Your task to perform on an android device: open app "Etsy: Buy & Sell Unique Items" Image 0: 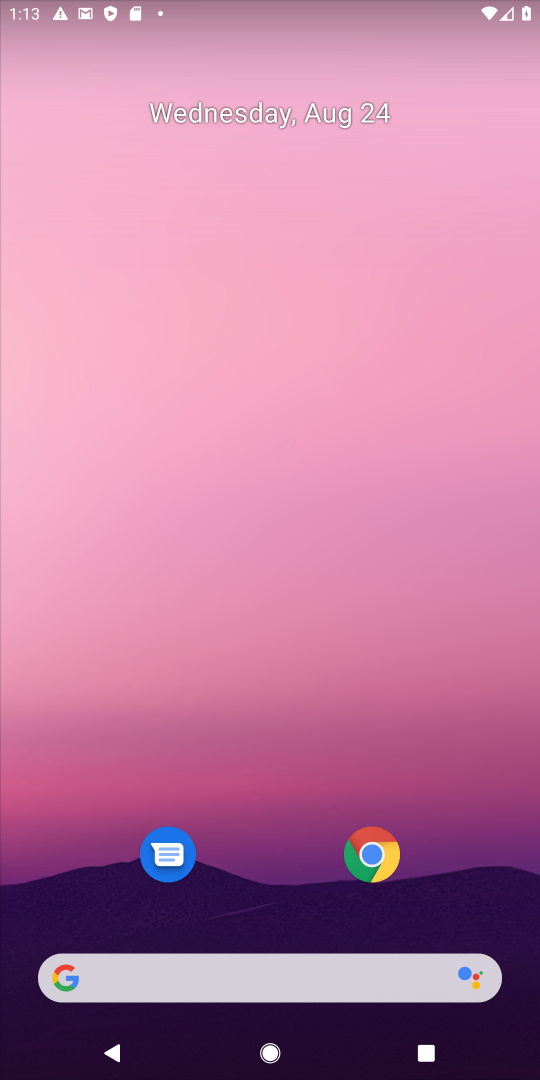
Step 0: press home button
Your task to perform on an android device: open app "Etsy: Buy & Sell Unique Items" Image 1: 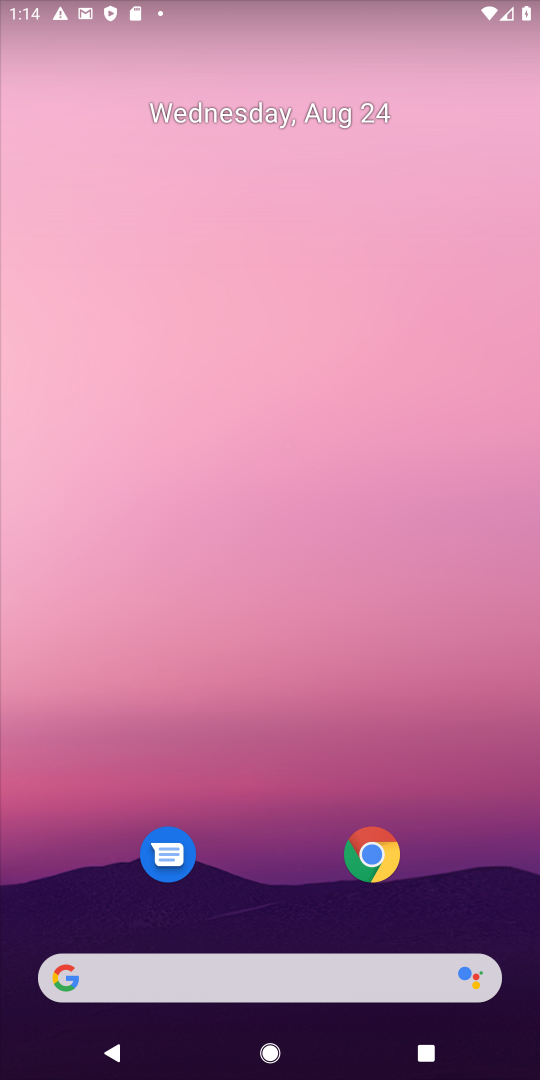
Step 1: drag from (483, 877) to (495, 136)
Your task to perform on an android device: open app "Etsy: Buy & Sell Unique Items" Image 2: 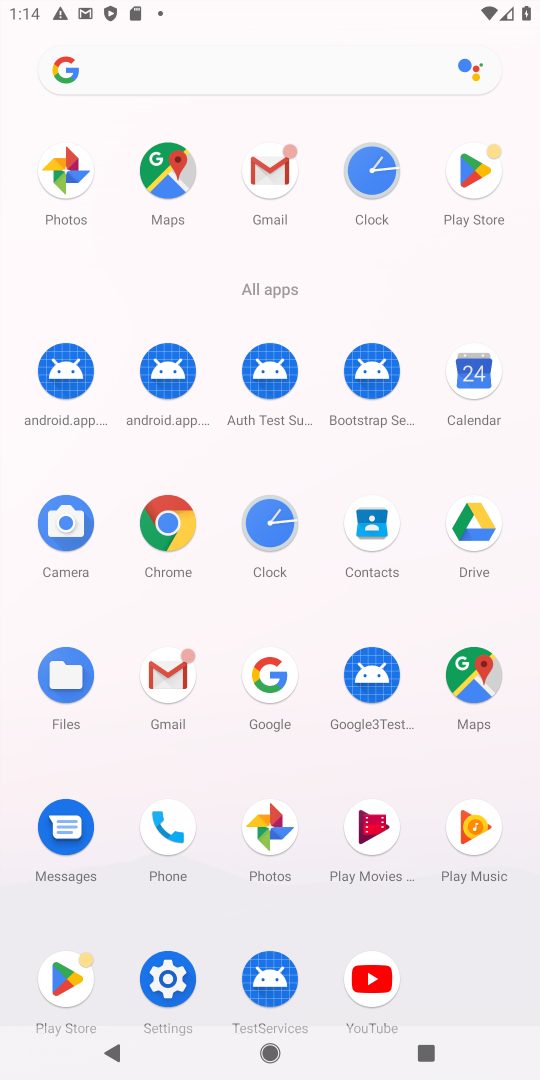
Step 2: click (474, 168)
Your task to perform on an android device: open app "Etsy: Buy & Sell Unique Items" Image 3: 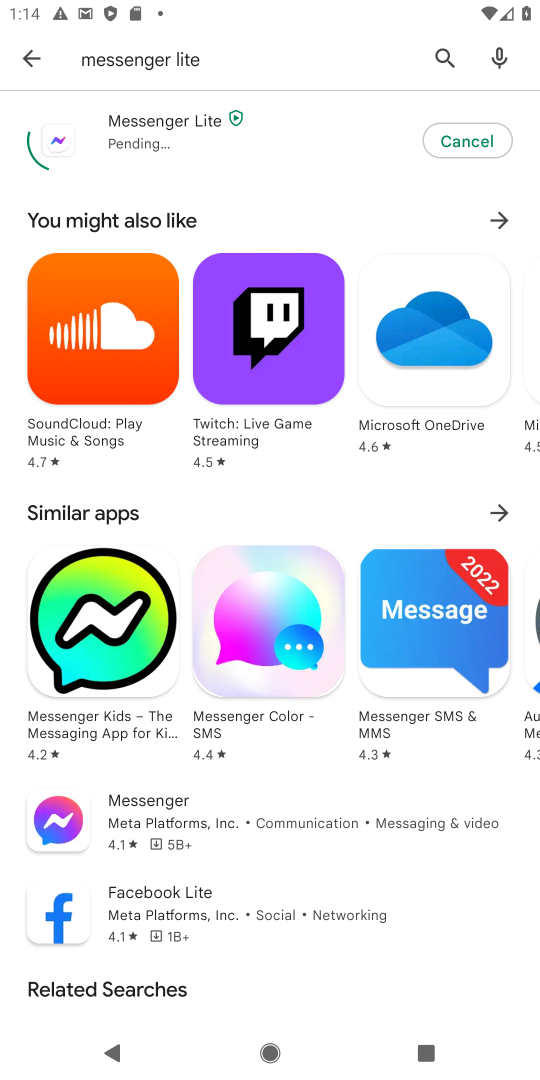
Step 3: press back button
Your task to perform on an android device: open app "Etsy: Buy & Sell Unique Items" Image 4: 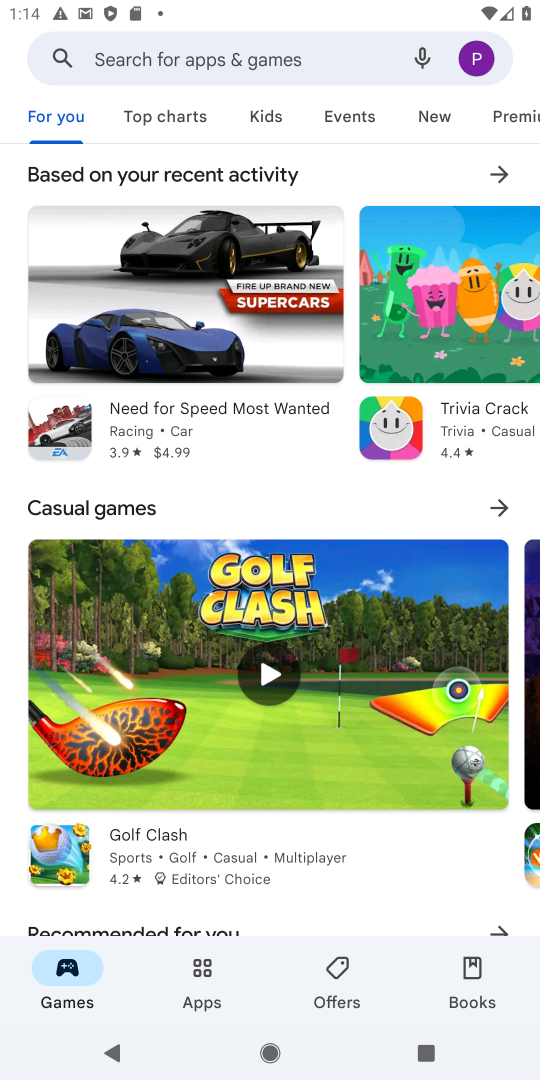
Step 4: click (280, 54)
Your task to perform on an android device: open app "Etsy: Buy & Sell Unique Items" Image 5: 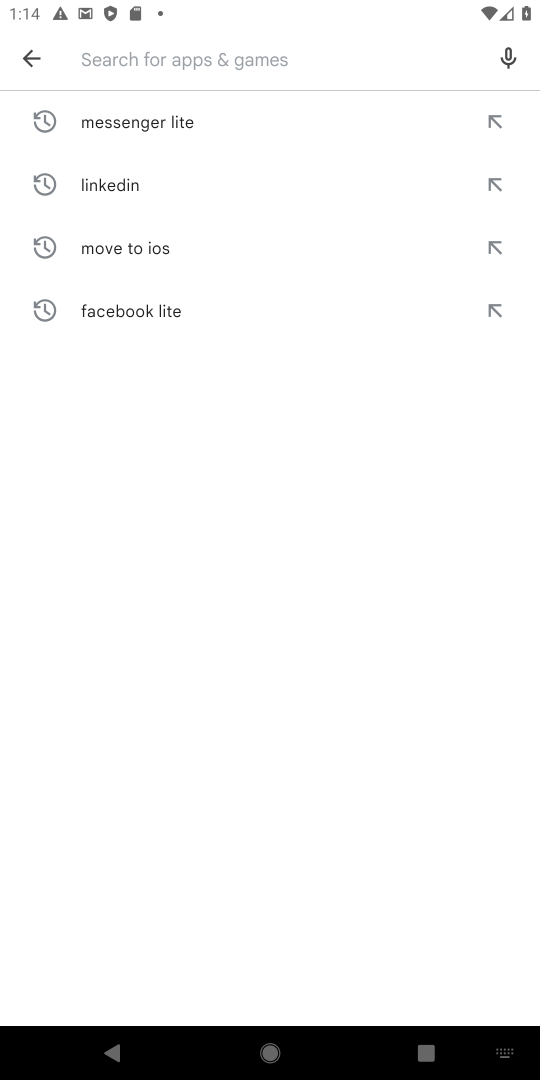
Step 5: type "Etsy: Buy & Sell Unique Items"
Your task to perform on an android device: open app "Etsy: Buy & Sell Unique Items" Image 6: 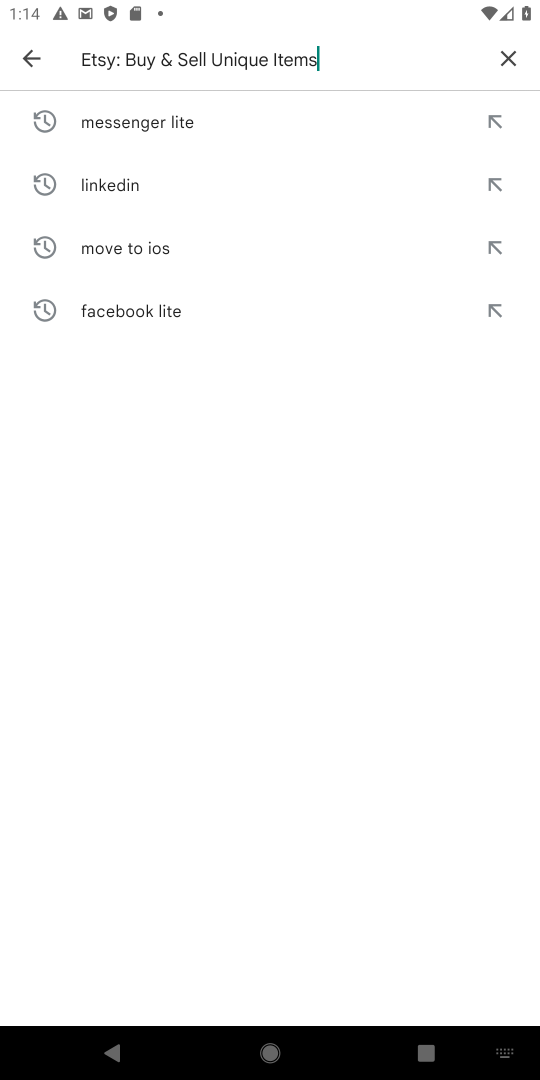
Step 6: press enter
Your task to perform on an android device: open app "Etsy: Buy & Sell Unique Items" Image 7: 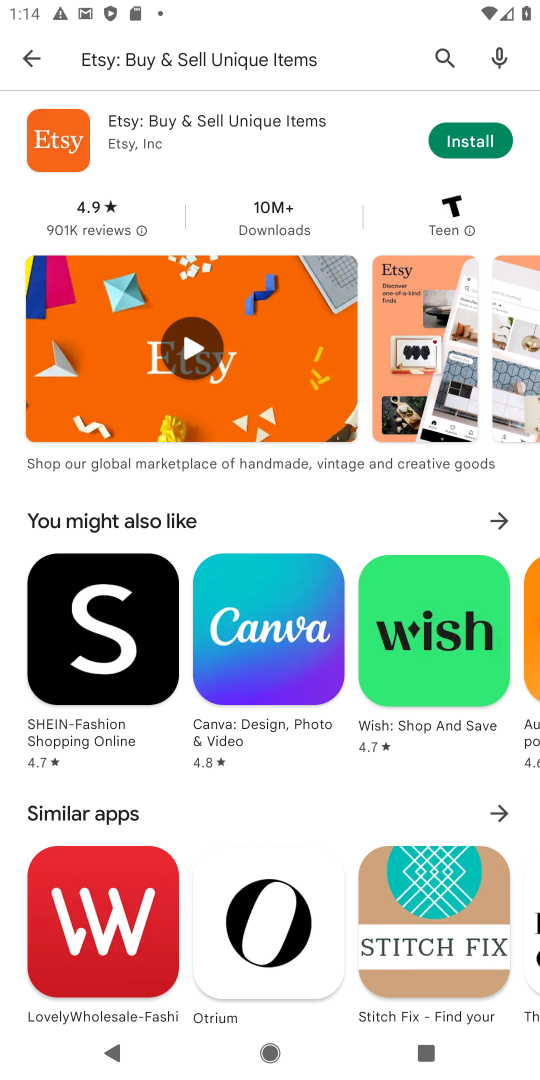
Step 7: task complete